Your task to perform on an android device: turn off improve location accuracy Image 0: 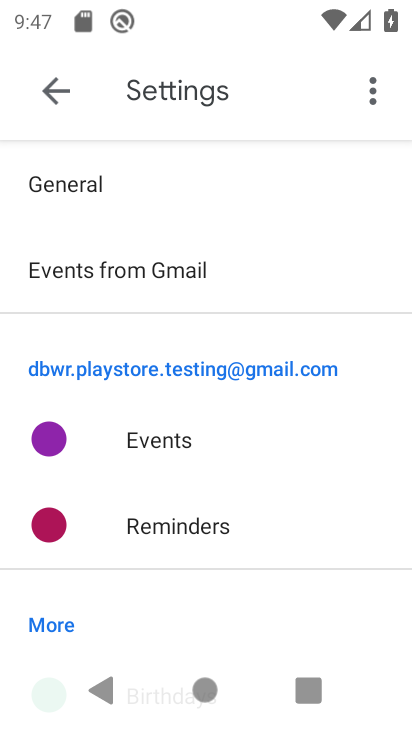
Step 0: press home button
Your task to perform on an android device: turn off improve location accuracy Image 1: 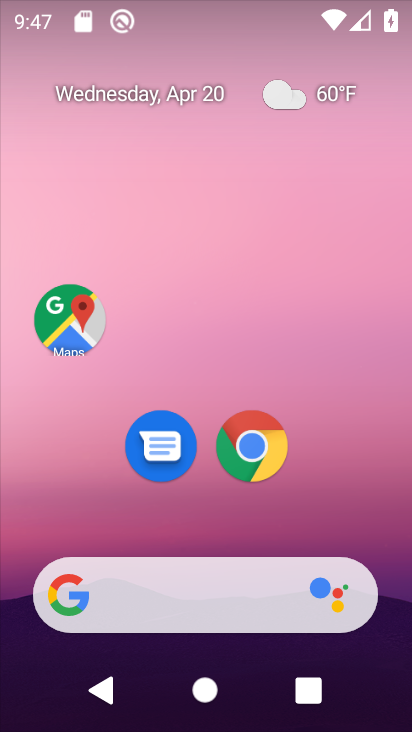
Step 1: drag from (371, 507) to (344, 121)
Your task to perform on an android device: turn off improve location accuracy Image 2: 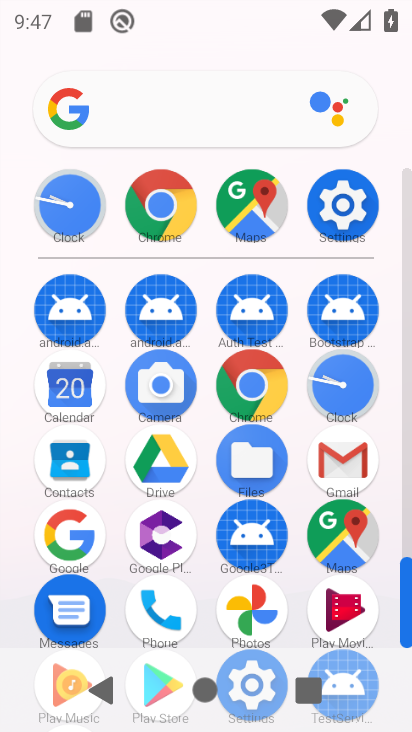
Step 2: click (361, 205)
Your task to perform on an android device: turn off improve location accuracy Image 3: 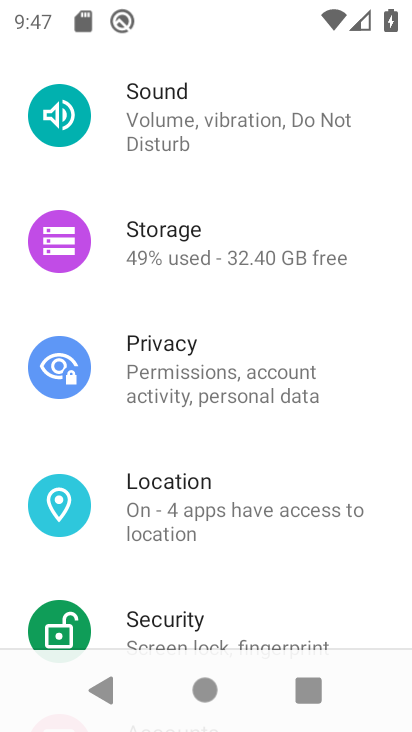
Step 3: click (264, 527)
Your task to perform on an android device: turn off improve location accuracy Image 4: 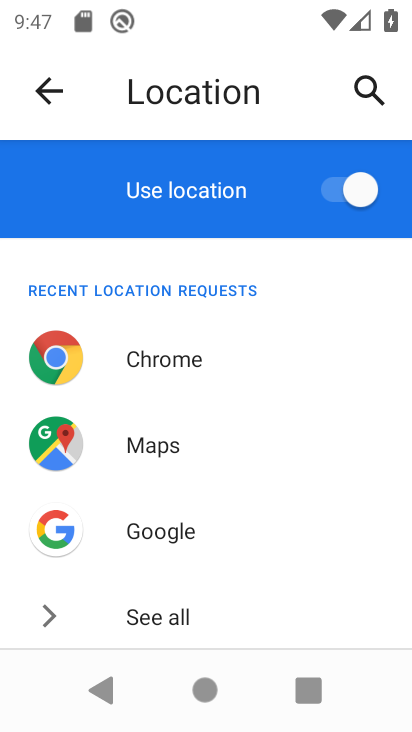
Step 4: drag from (310, 616) to (294, 225)
Your task to perform on an android device: turn off improve location accuracy Image 5: 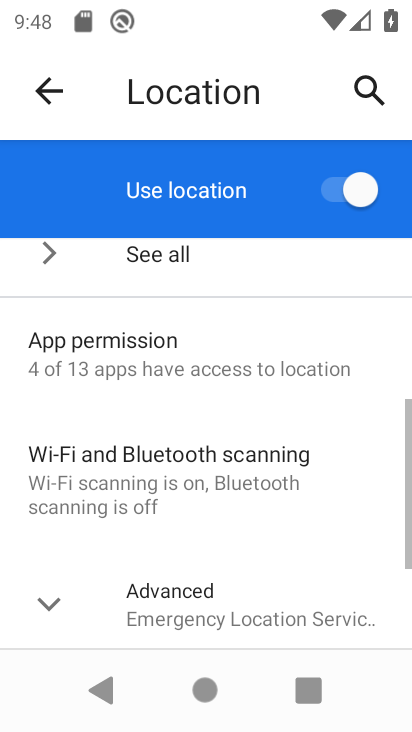
Step 5: click (290, 619)
Your task to perform on an android device: turn off improve location accuracy Image 6: 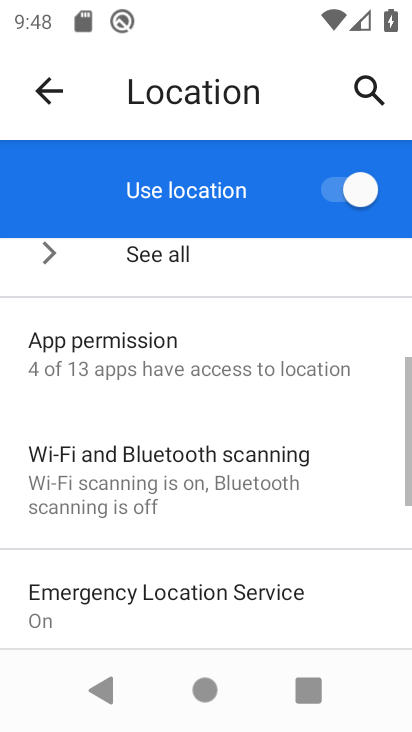
Step 6: drag from (278, 572) to (283, 313)
Your task to perform on an android device: turn off improve location accuracy Image 7: 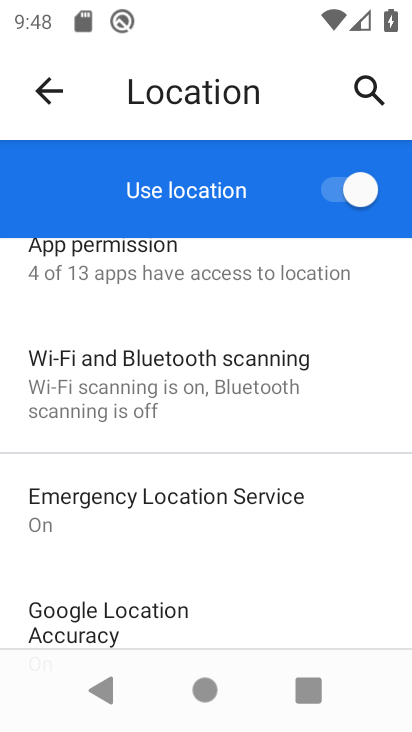
Step 7: click (125, 608)
Your task to perform on an android device: turn off improve location accuracy Image 8: 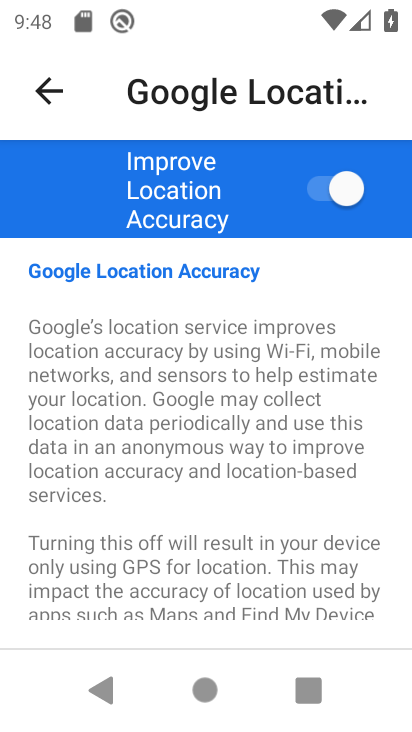
Step 8: click (319, 194)
Your task to perform on an android device: turn off improve location accuracy Image 9: 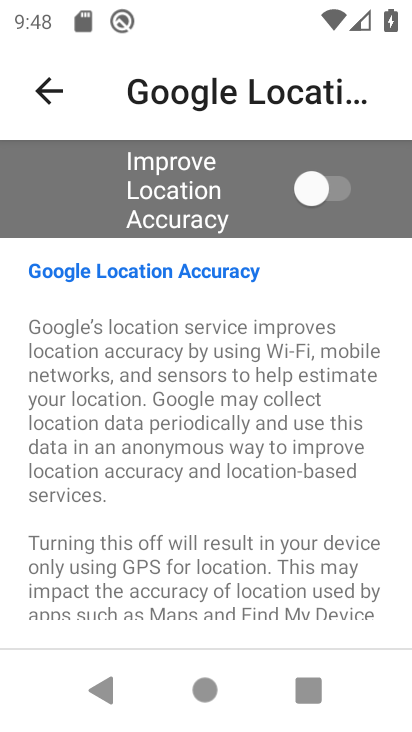
Step 9: task complete